Your task to perform on an android device: Turn off the flashlight Image 0: 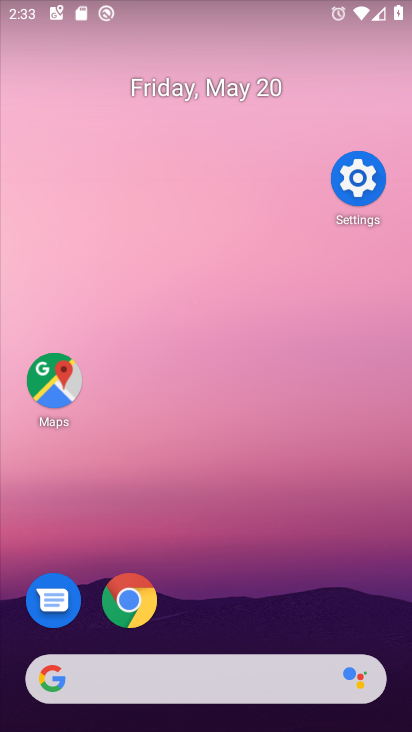
Step 0: drag from (241, 604) to (254, 7)
Your task to perform on an android device: Turn off the flashlight Image 1: 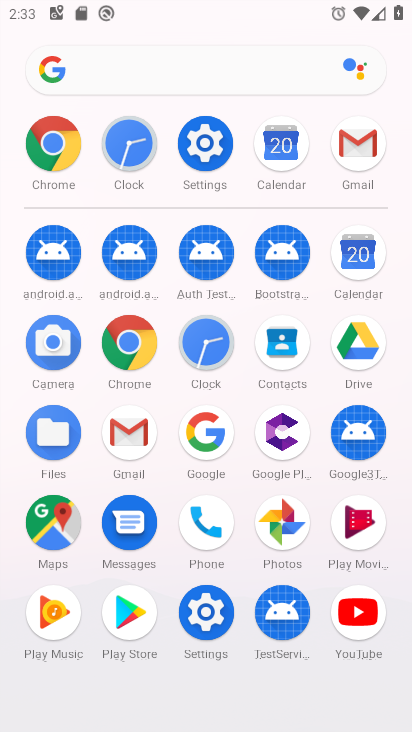
Step 1: click (220, 150)
Your task to perform on an android device: Turn off the flashlight Image 2: 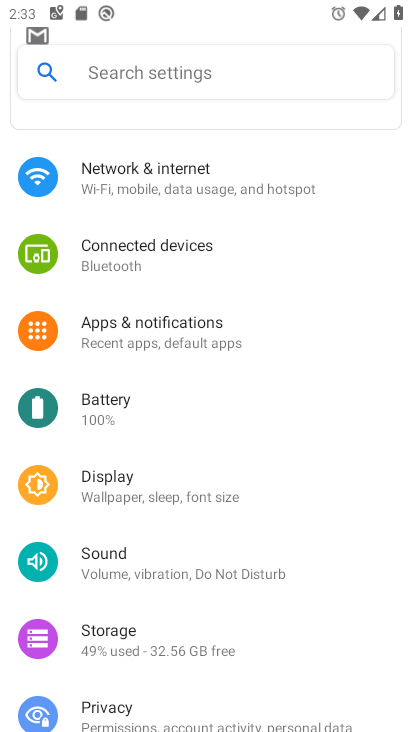
Step 2: click (244, 77)
Your task to perform on an android device: Turn off the flashlight Image 3: 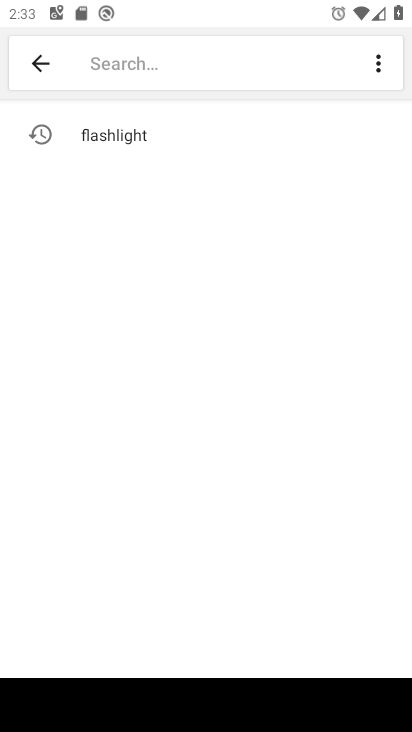
Step 3: type "flash"
Your task to perform on an android device: Turn off the flashlight Image 4: 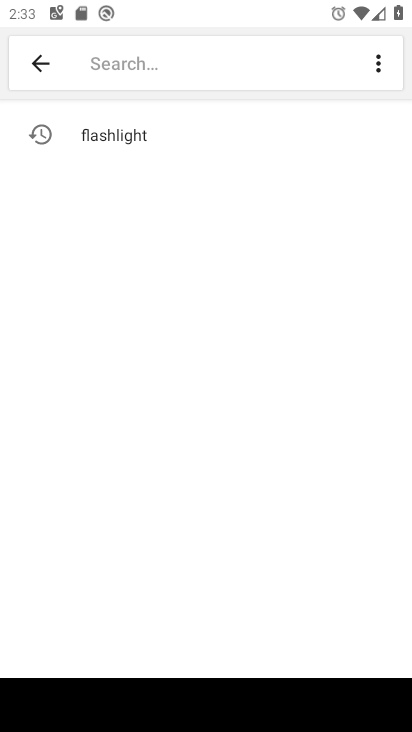
Step 4: click (154, 116)
Your task to perform on an android device: Turn off the flashlight Image 5: 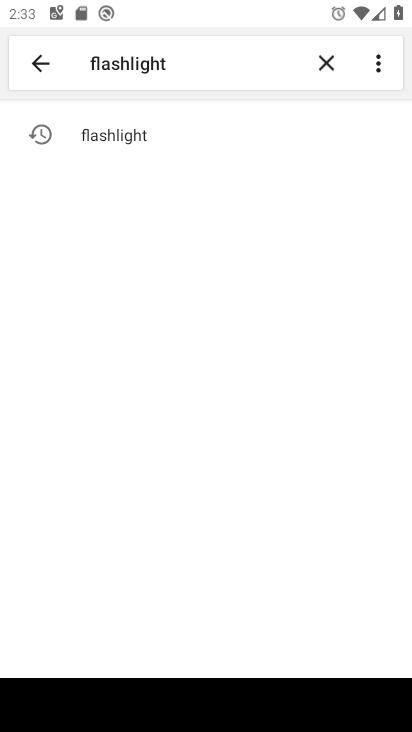
Step 5: click (139, 134)
Your task to perform on an android device: Turn off the flashlight Image 6: 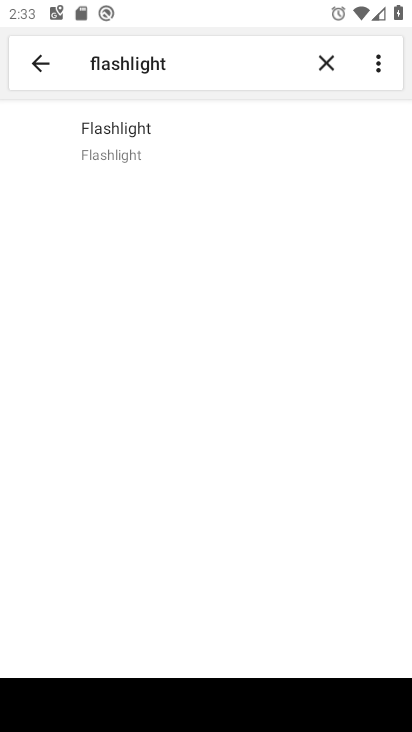
Step 6: task complete